Your task to perform on an android device: Show me popular games on the Play Store Image 0: 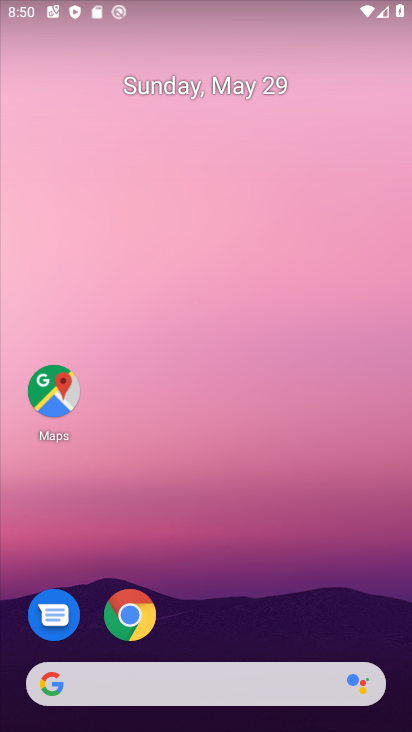
Step 0: drag from (270, 642) to (202, 17)
Your task to perform on an android device: Show me popular games on the Play Store Image 1: 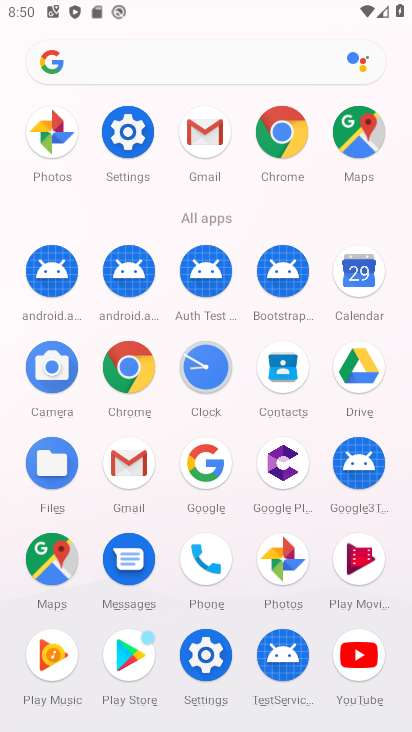
Step 1: click (120, 656)
Your task to perform on an android device: Show me popular games on the Play Store Image 2: 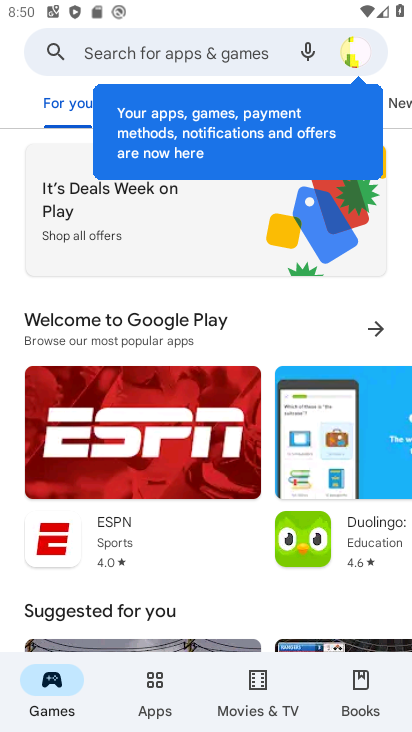
Step 2: click (46, 675)
Your task to perform on an android device: Show me popular games on the Play Store Image 3: 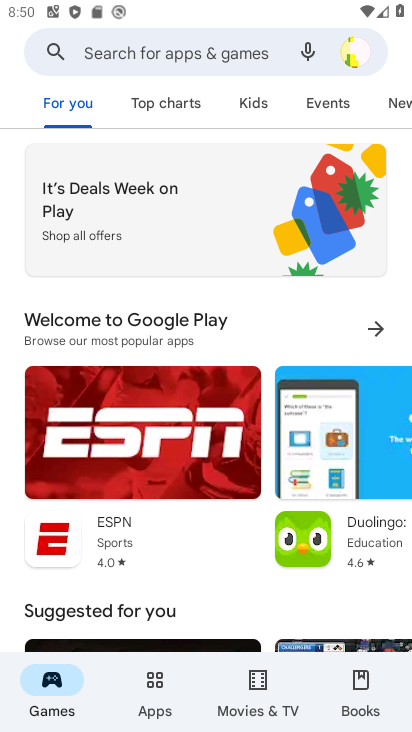
Step 3: click (189, 108)
Your task to perform on an android device: Show me popular games on the Play Store Image 4: 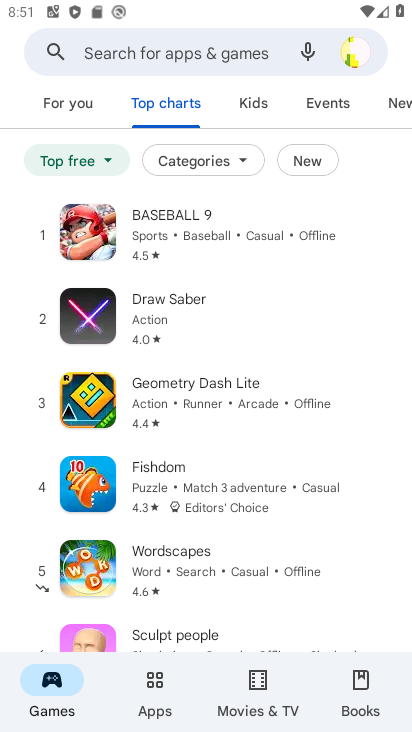
Step 4: task complete